Your task to perform on an android device: turn off picture-in-picture Image 0: 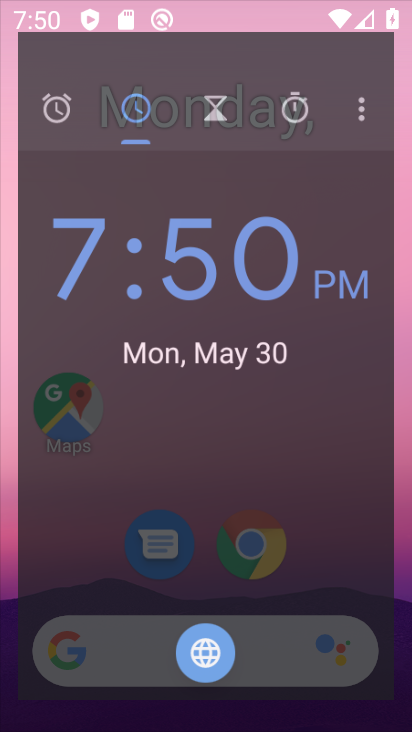
Step 0: drag from (225, 595) to (169, 197)
Your task to perform on an android device: turn off picture-in-picture Image 1: 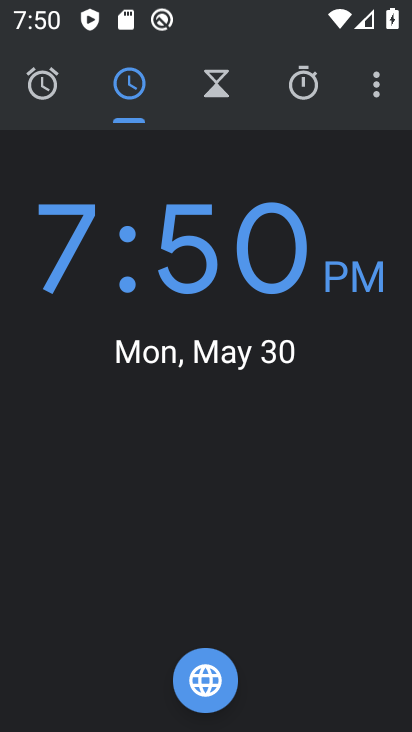
Step 1: press home button
Your task to perform on an android device: turn off picture-in-picture Image 2: 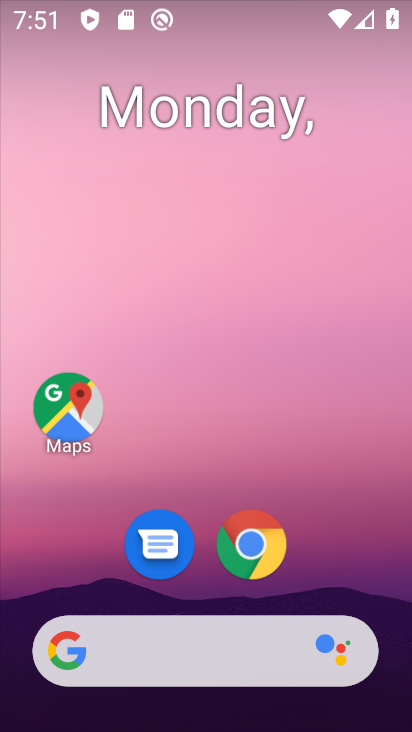
Step 2: drag from (198, 497) to (71, 0)
Your task to perform on an android device: turn off picture-in-picture Image 3: 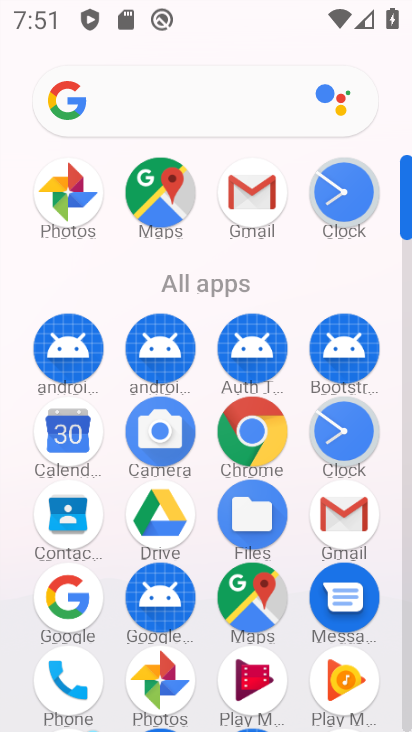
Step 3: drag from (245, 554) to (186, 103)
Your task to perform on an android device: turn off picture-in-picture Image 4: 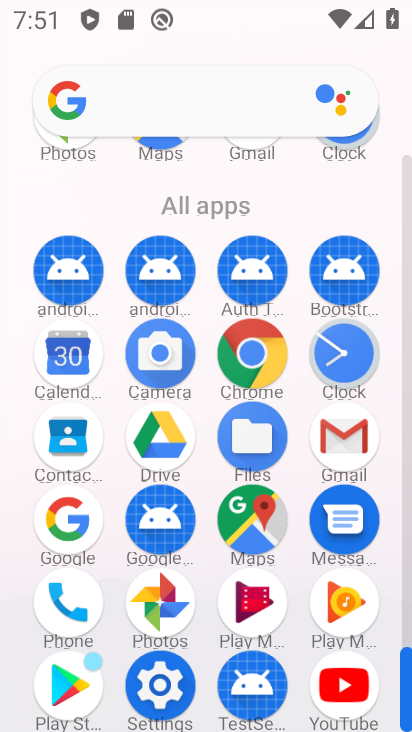
Step 4: click (156, 683)
Your task to perform on an android device: turn off picture-in-picture Image 5: 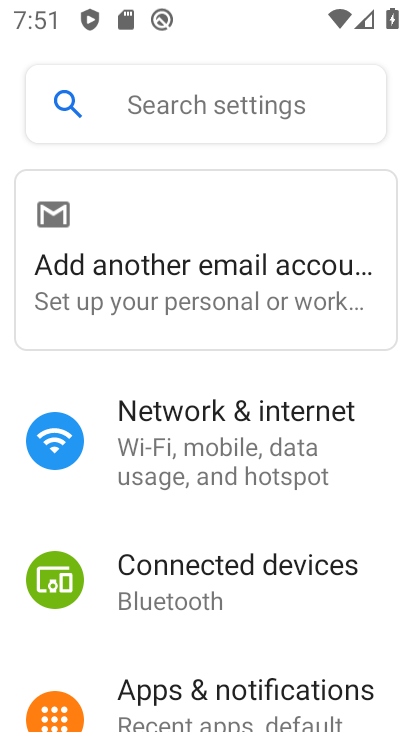
Step 5: drag from (238, 636) to (126, 141)
Your task to perform on an android device: turn off picture-in-picture Image 6: 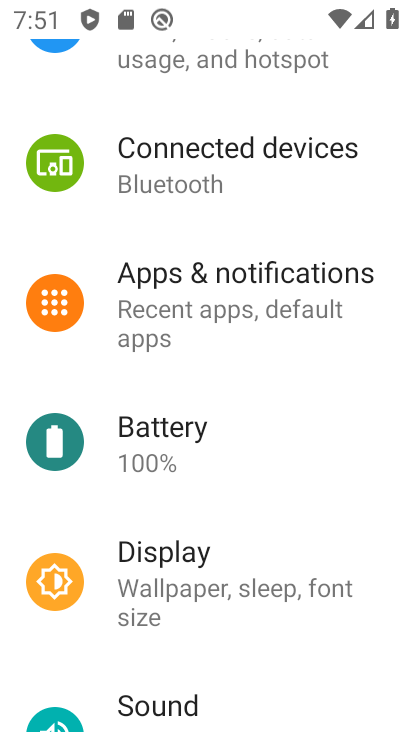
Step 6: click (209, 295)
Your task to perform on an android device: turn off picture-in-picture Image 7: 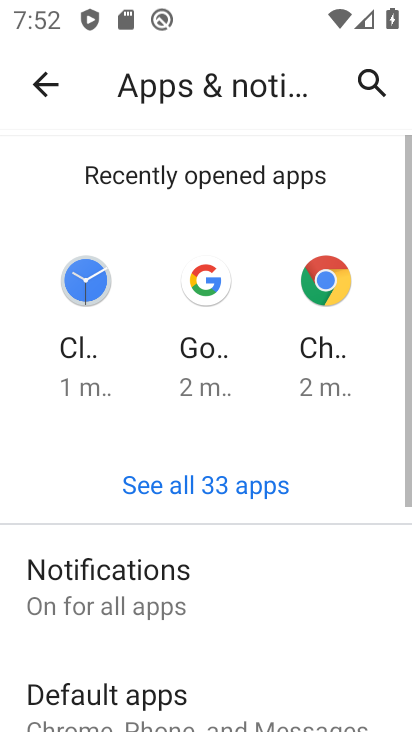
Step 7: click (179, 559)
Your task to perform on an android device: turn off picture-in-picture Image 8: 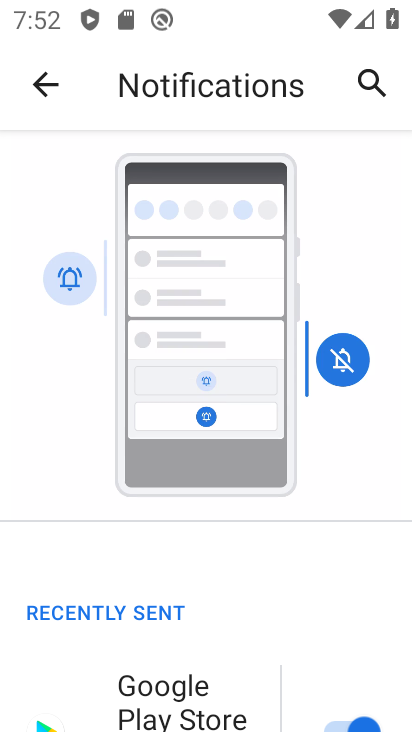
Step 8: drag from (178, 560) to (68, 8)
Your task to perform on an android device: turn off picture-in-picture Image 9: 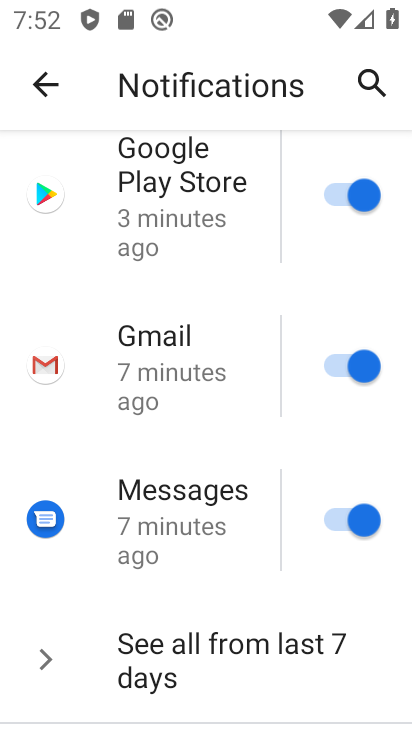
Step 9: drag from (258, 559) to (138, 107)
Your task to perform on an android device: turn off picture-in-picture Image 10: 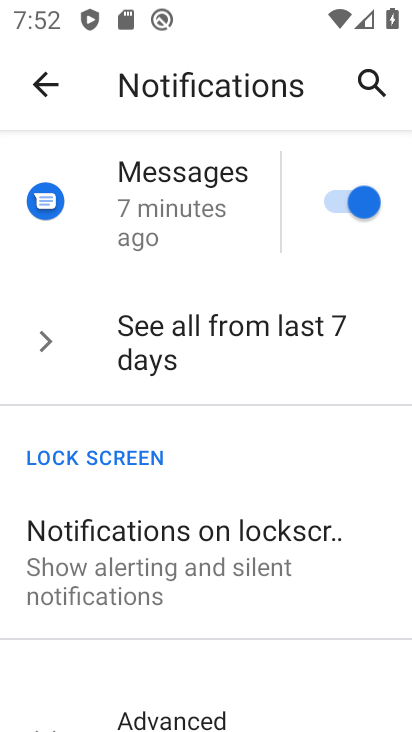
Step 10: drag from (178, 656) to (87, 225)
Your task to perform on an android device: turn off picture-in-picture Image 11: 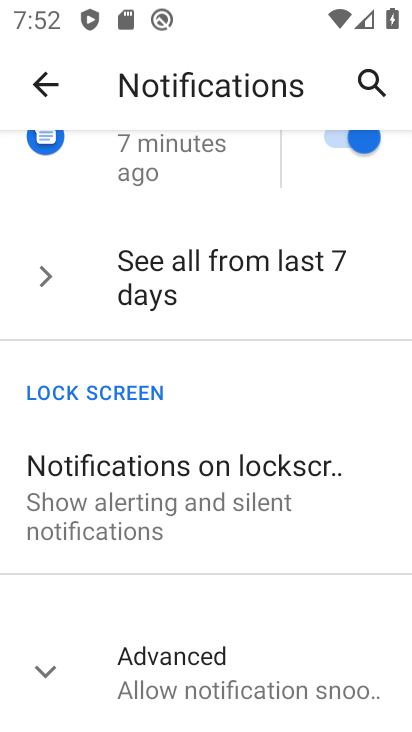
Step 11: click (167, 644)
Your task to perform on an android device: turn off picture-in-picture Image 12: 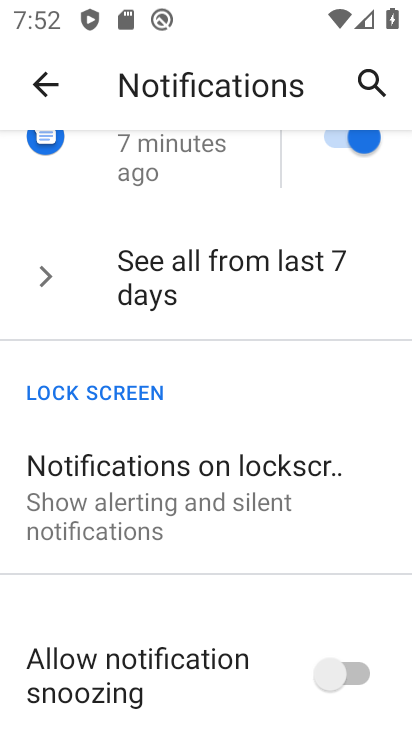
Step 12: task complete